Your task to perform on an android device: check data usage Image 0: 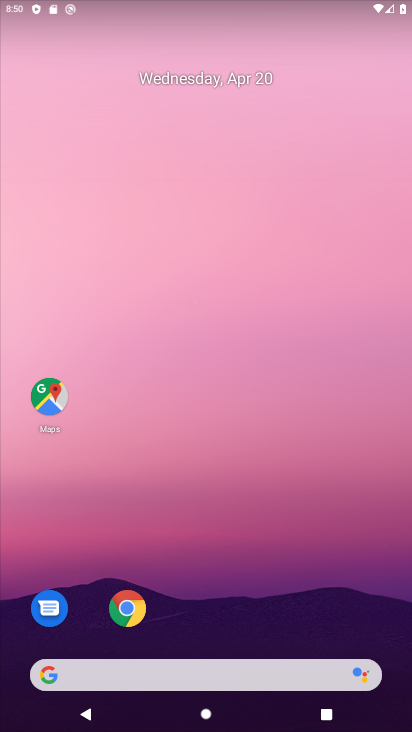
Step 0: drag from (178, 650) to (287, 46)
Your task to perform on an android device: check data usage Image 1: 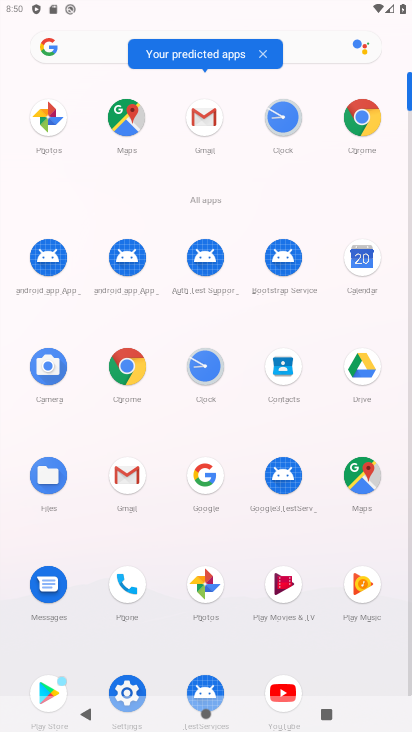
Step 1: click (122, 673)
Your task to perform on an android device: check data usage Image 2: 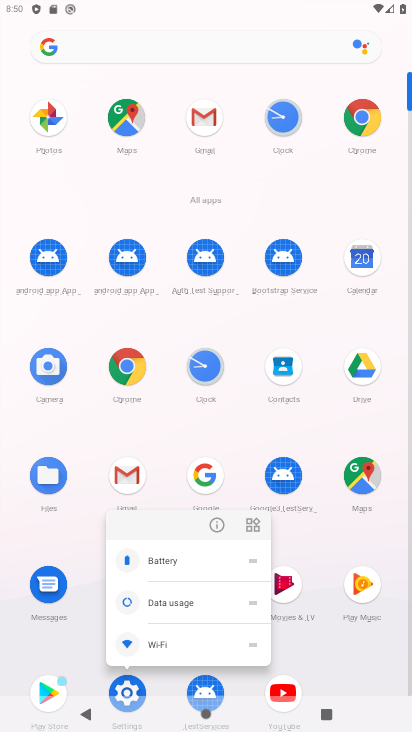
Step 2: click (132, 690)
Your task to perform on an android device: check data usage Image 3: 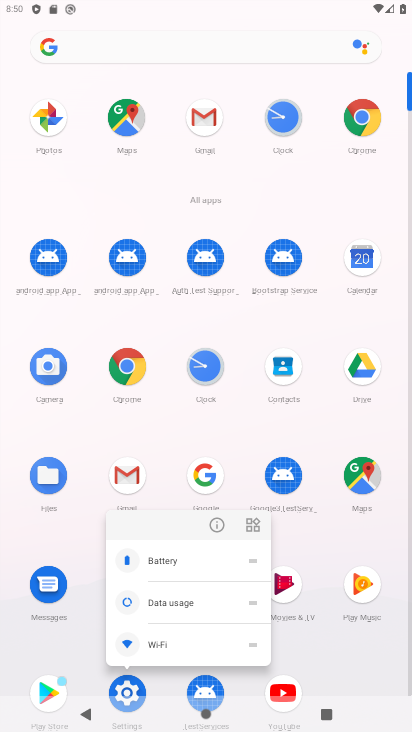
Step 3: click (129, 688)
Your task to perform on an android device: check data usage Image 4: 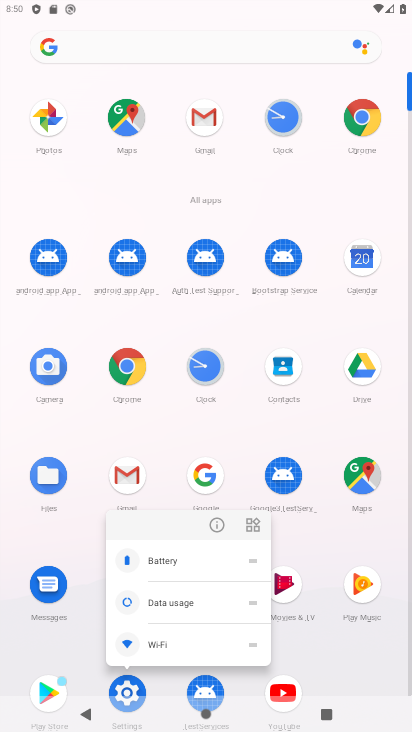
Step 4: click (129, 684)
Your task to perform on an android device: check data usage Image 5: 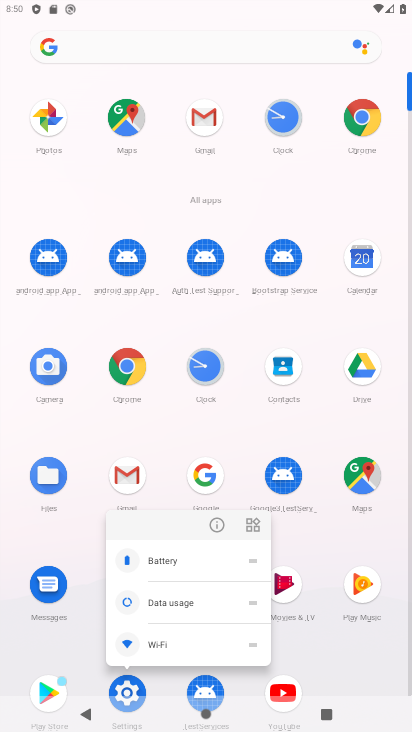
Step 5: click (124, 687)
Your task to perform on an android device: check data usage Image 6: 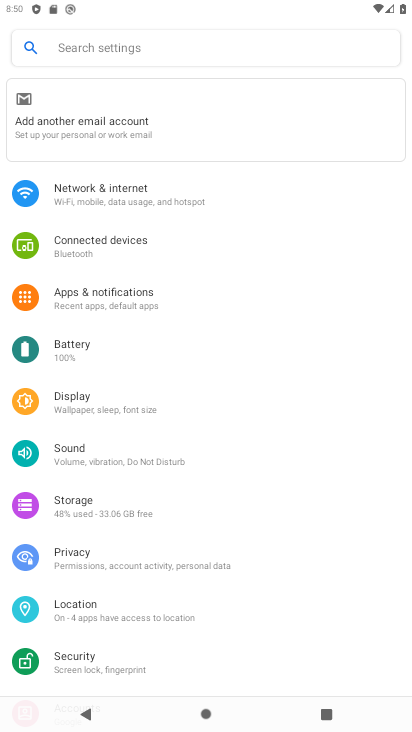
Step 6: click (174, 202)
Your task to perform on an android device: check data usage Image 7: 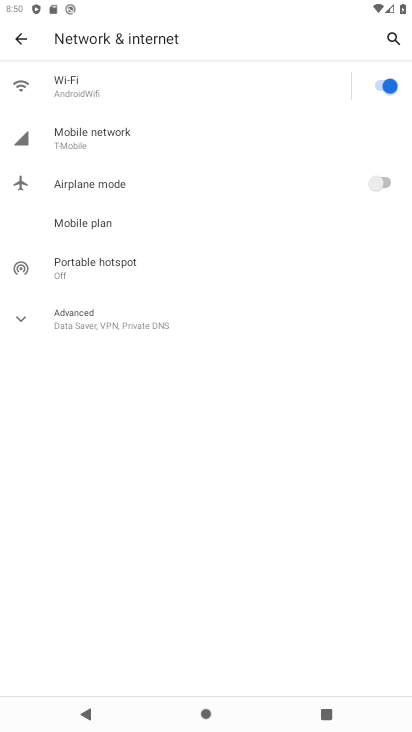
Step 7: click (208, 132)
Your task to perform on an android device: check data usage Image 8: 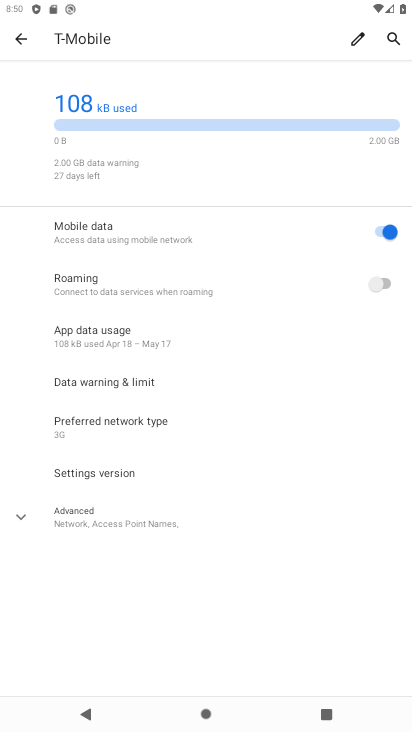
Step 8: click (192, 338)
Your task to perform on an android device: check data usage Image 9: 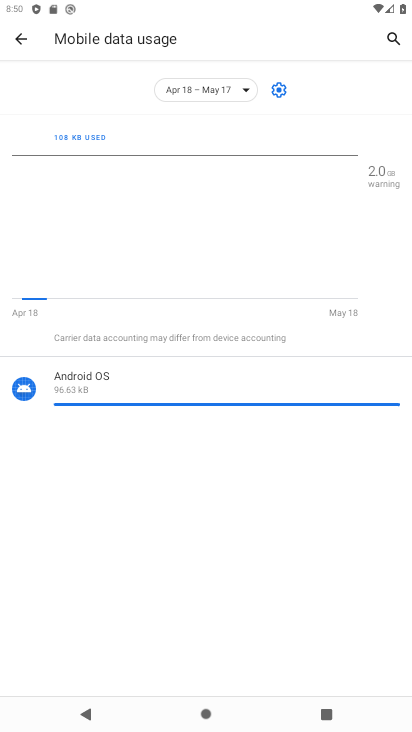
Step 9: task complete